Your task to perform on an android device: Open Youtube and go to the subscriptions tab Image 0: 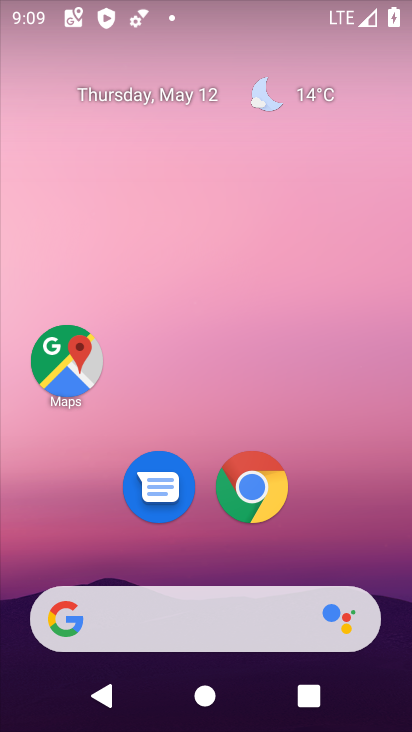
Step 0: press home button
Your task to perform on an android device: Open Youtube and go to the subscriptions tab Image 1: 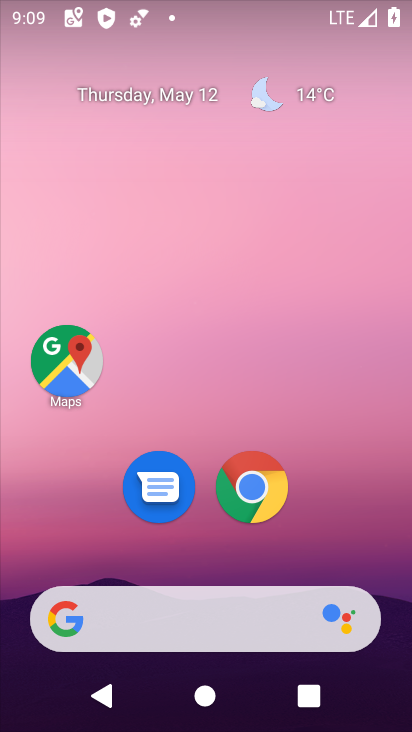
Step 1: drag from (68, 499) to (262, 162)
Your task to perform on an android device: Open Youtube and go to the subscriptions tab Image 2: 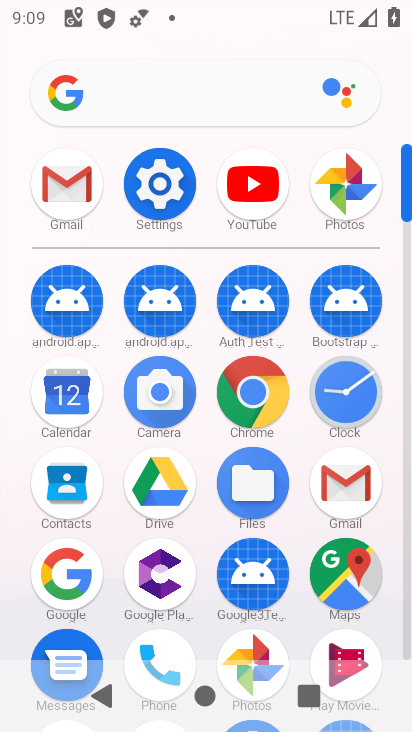
Step 2: drag from (0, 652) to (309, 191)
Your task to perform on an android device: Open Youtube and go to the subscriptions tab Image 3: 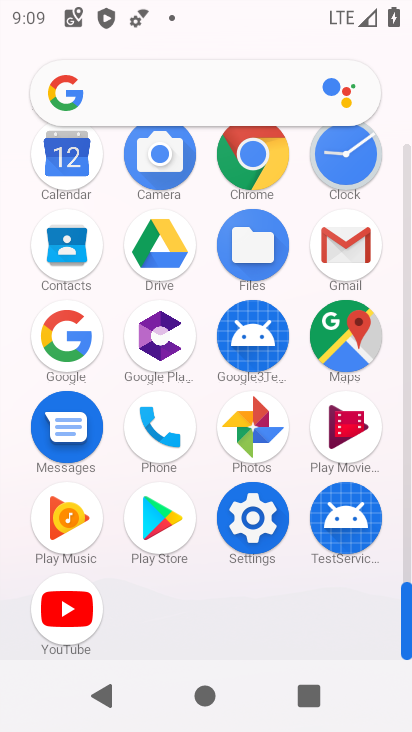
Step 3: click (81, 613)
Your task to perform on an android device: Open Youtube and go to the subscriptions tab Image 4: 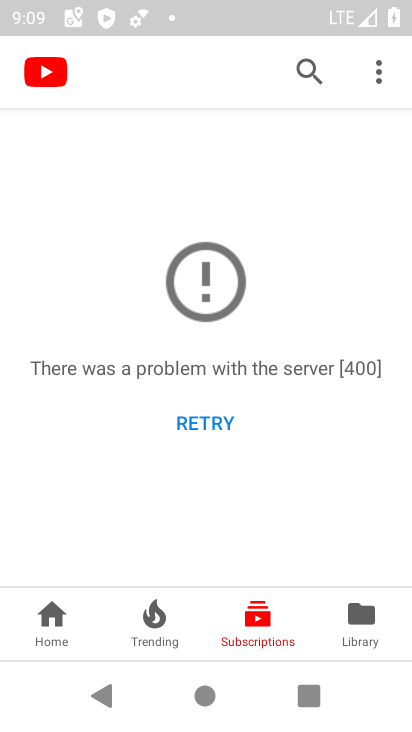
Step 4: click (246, 632)
Your task to perform on an android device: Open Youtube and go to the subscriptions tab Image 5: 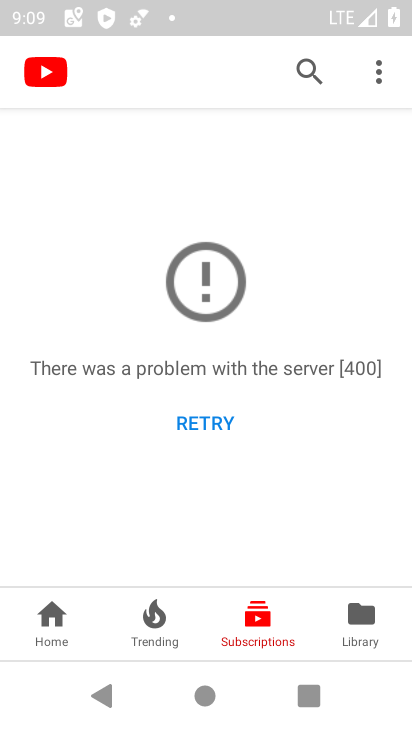
Step 5: task complete